Your task to perform on an android device: Show me a list of home improvement items on the Home Depot website. Image 0: 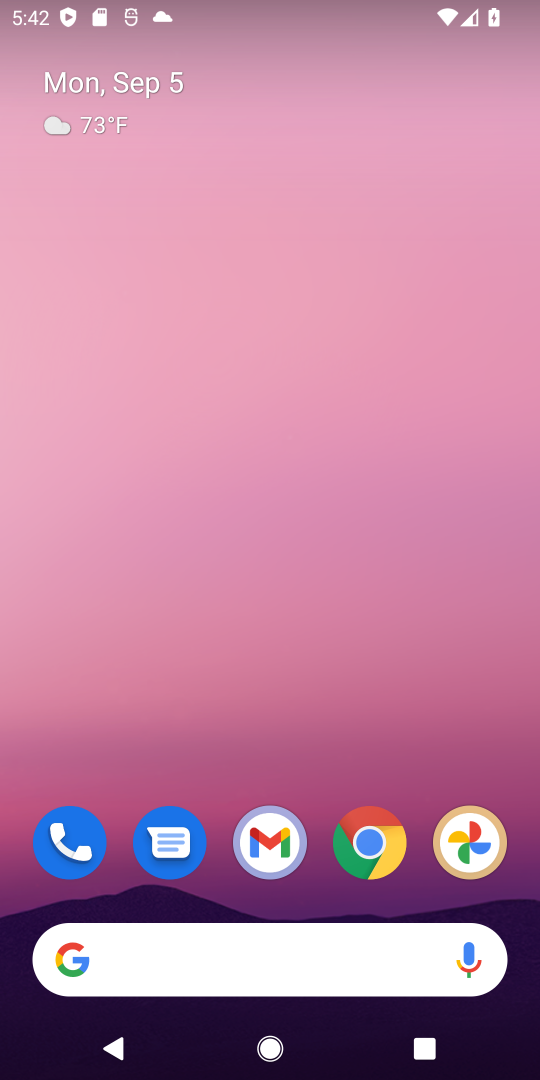
Step 0: click (376, 845)
Your task to perform on an android device: Show me a list of home improvement items on the Home Depot website. Image 1: 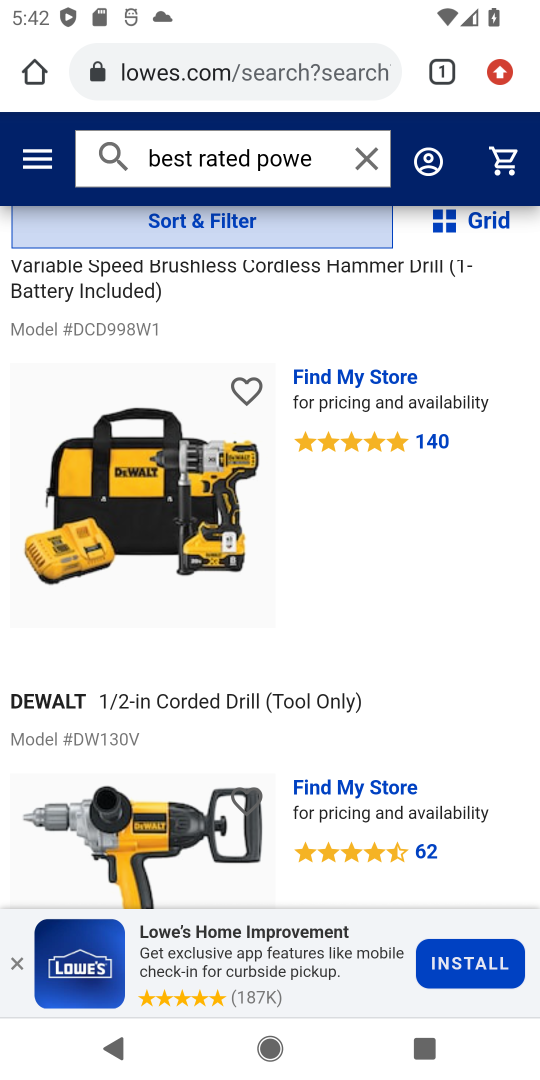
Step 1: click (349, 86)
Your task to perform on an android device: Show me a list of home improvement items on the Home Depot website. Image 2: 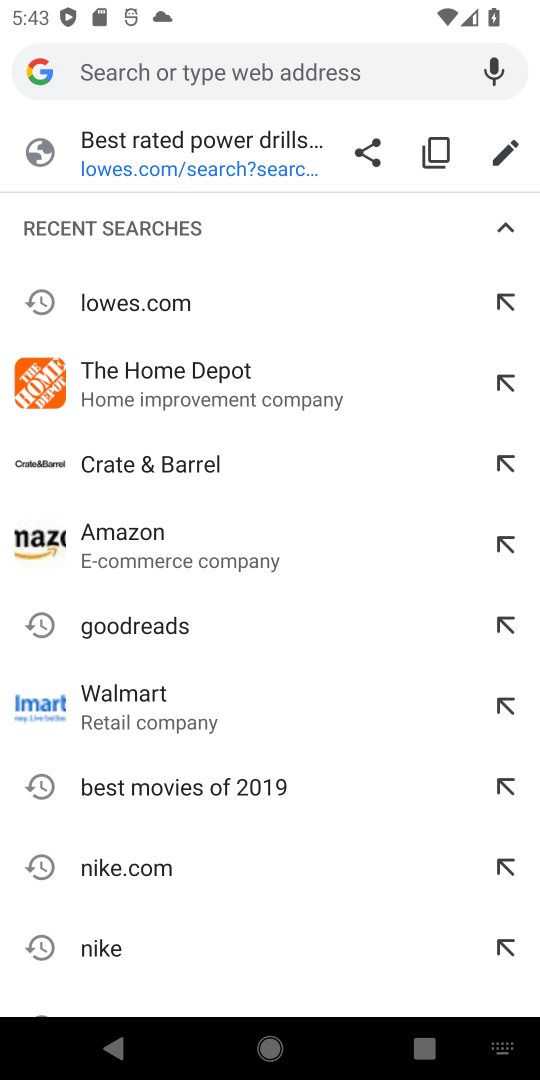
Step 2: click (235, 71)
Your task to perform on an android device: Show me a list of home improvement items on the Home Depot website. Image 3: 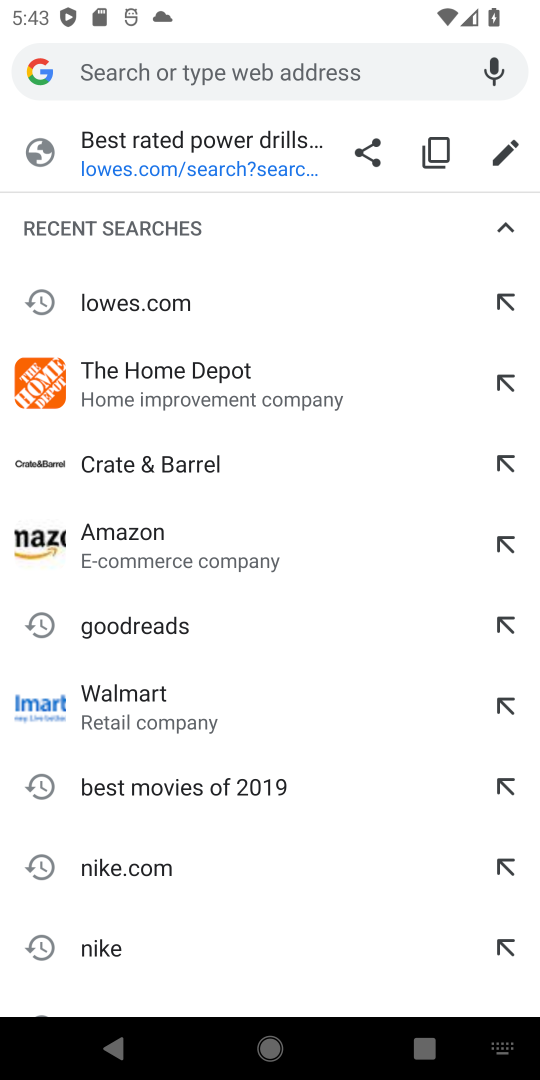
Step 3: type "Home Depot website"
Your task to perform on an android device: Show me a list of home improvement items on the Home Depot website. Image 4: 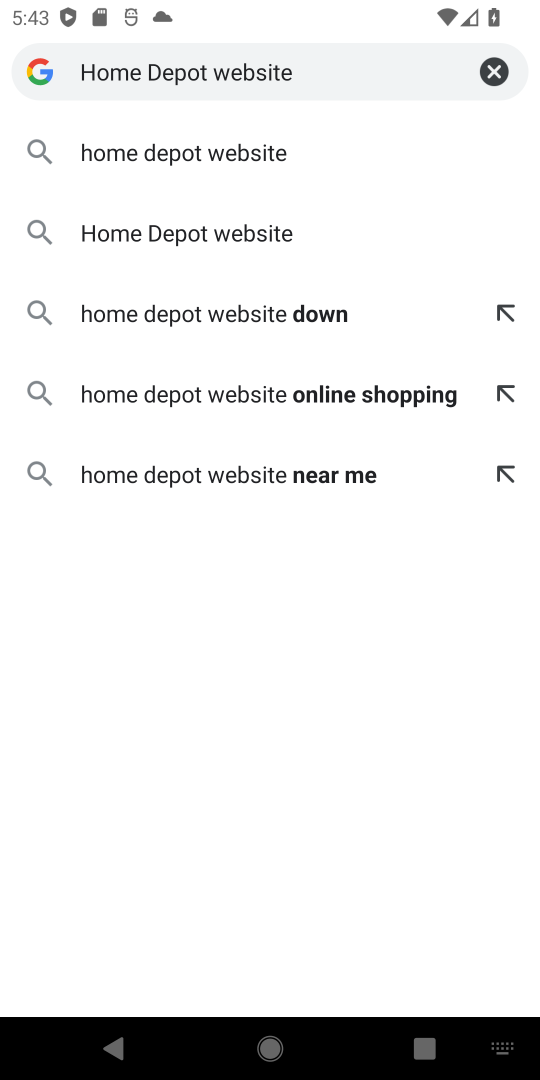
Step 4: click (251, 157)
Your task to perform on an android device: Show me a list of home improvement items on the Home Depot website. Image 5: 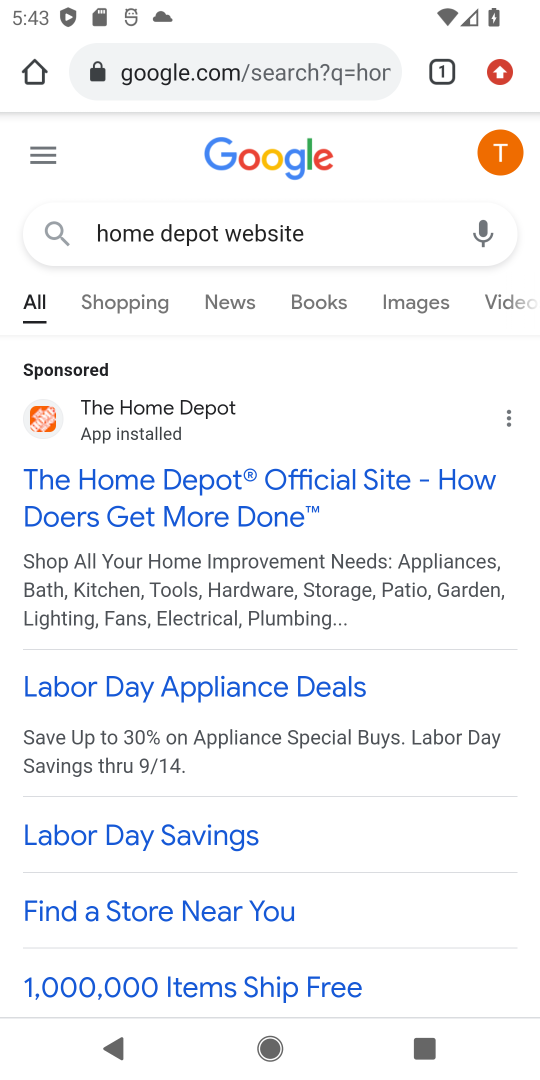
Step 5: click (304, 522)
Your task to perform on an android device: Show me a list of home improvement items on the Home Depot website. Image 6: 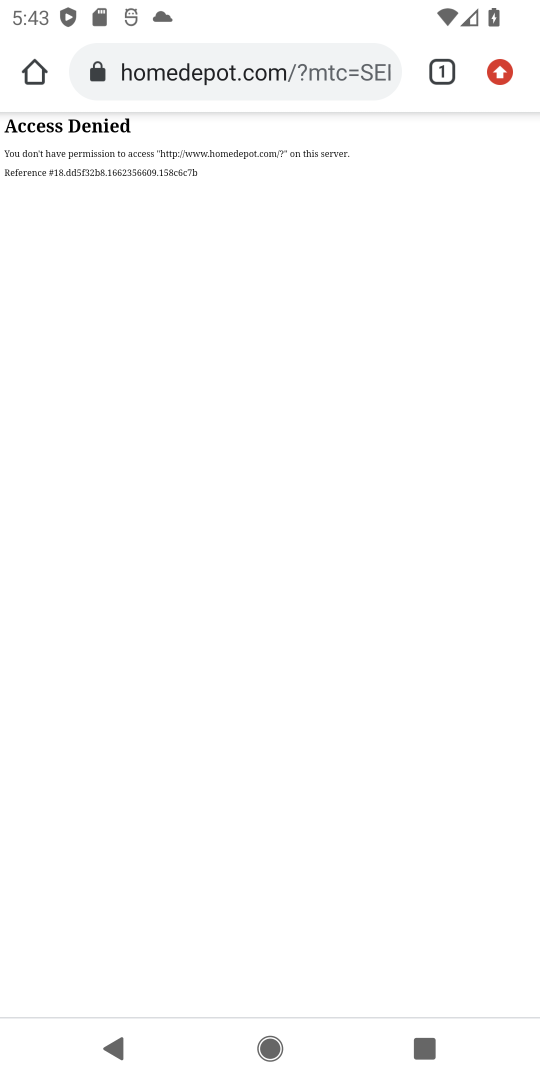
Step 6: task complete